Your task to perform on an android device: turn off javascript in the chrome app Image 0: 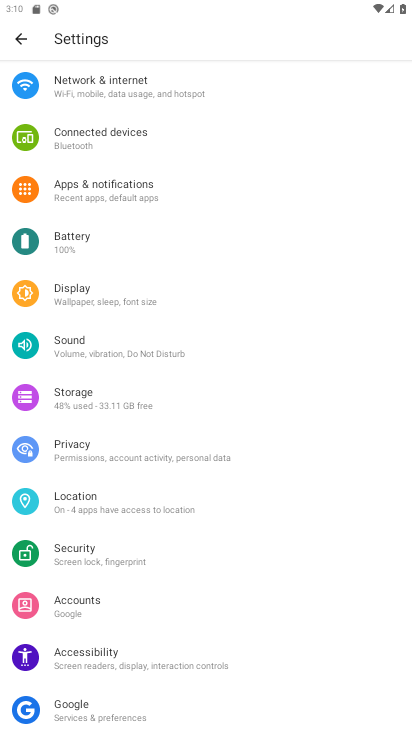
Step 0: press home button
Your task to perform on an android device: turn off javascript in the chrome app Image 1: 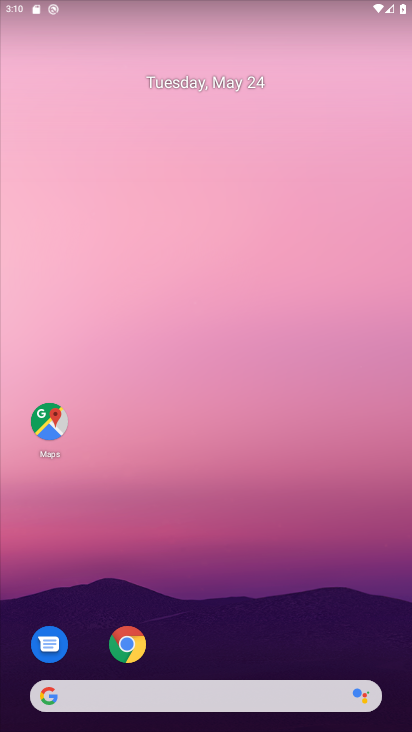
Step 1: drag from (268, 626) to (249, 110)
Your task to perform on an android device: turn off javascript in the chrome app Image 2: 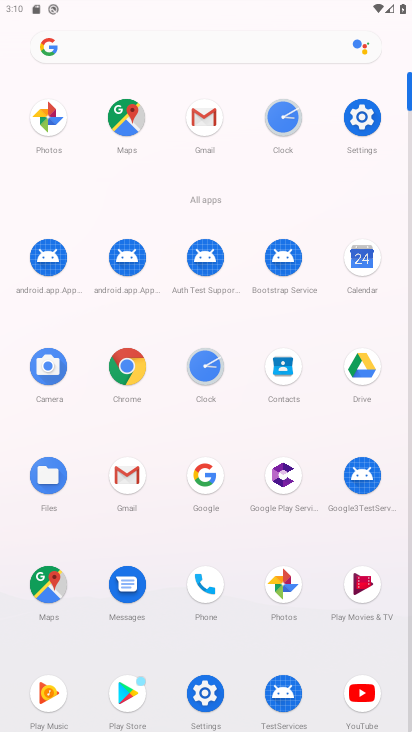
Step 2: click (134, 362)
Your task to perform on an android device: turn off javascript in the chrome app Image 3: 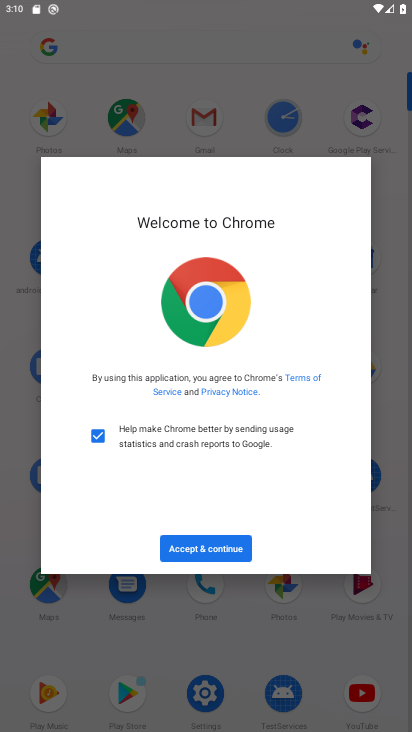
Step 3: click (221, 545)
Your task to perform on an android device: turn off javascript in the chrome app Image 4: 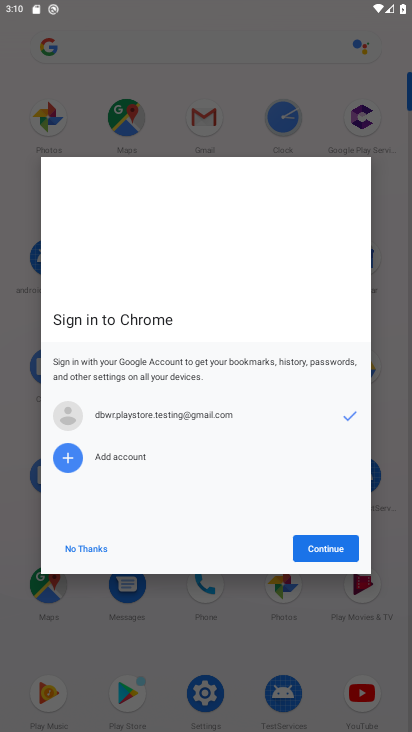
Step 4: click (345, 539)
Your task to perform on an android device: turn off javascript in the chrome app Image 5: 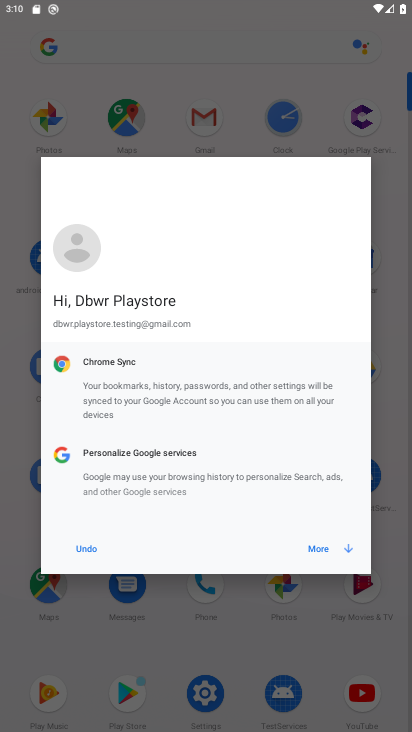
Step 5: click (330, 555)
Your task to perform on an android device: turn off javascript in the chrome app Image 6: 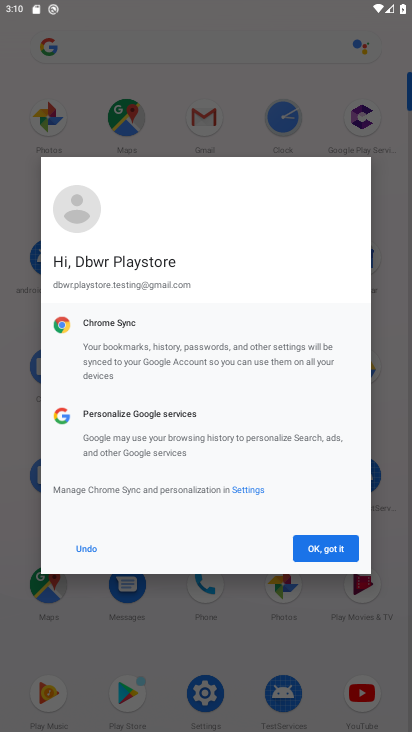
Step 6: click (330, 555)
Your task to perform on an android device: turn off javascript in the chrome app Image 7: 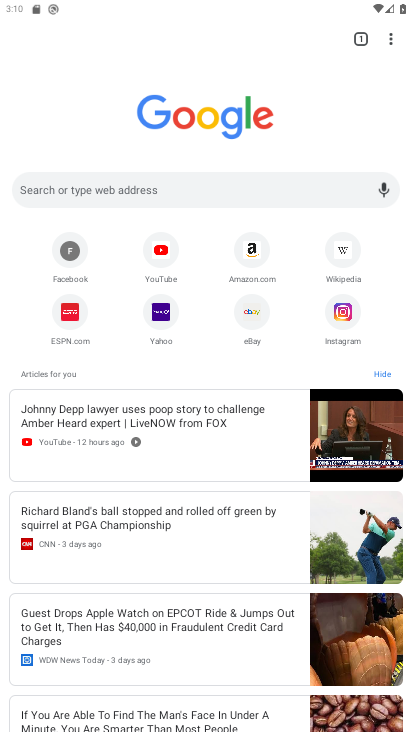
Step 7: click (389, 31)
Your task to perform on an android device: turn off javascript in the chrome app Image 8: 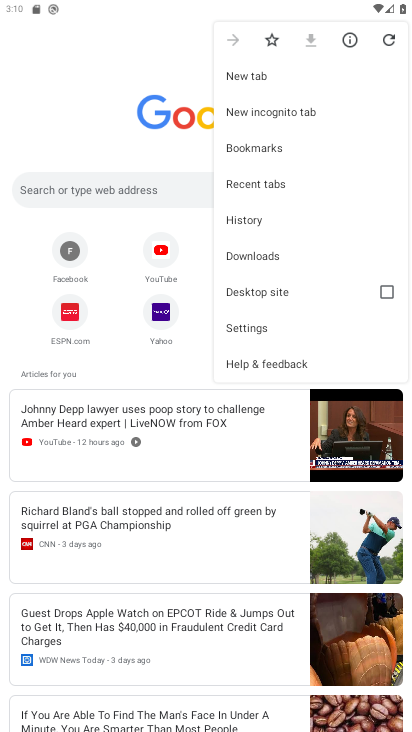
Step 8: click (241, 319)
Your task to perform on an android device: turn off javascript in the chrome app Image 9: 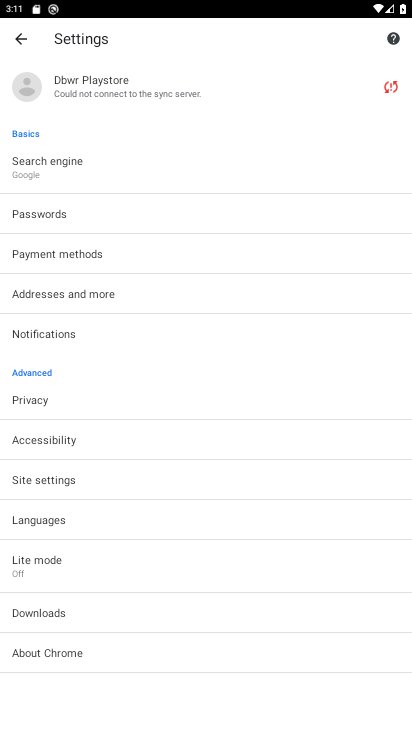
Step 9: click (156, 486)
Your task to perform on an android device: turn off javascript in the chrome app Image 10: 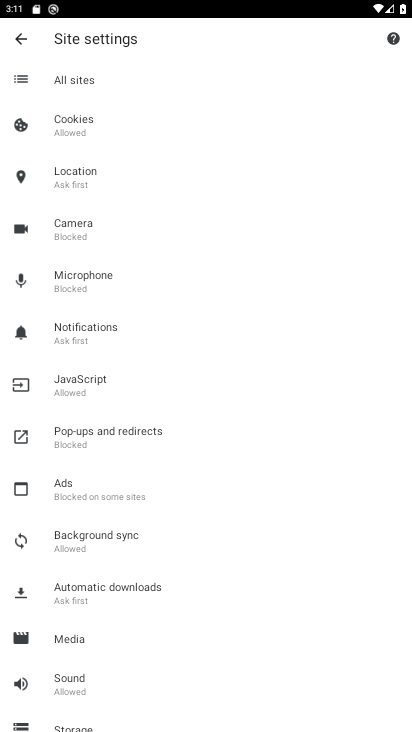
Step 10: click (140, 382)
Your task to perform on an android device: turn off javascript in the chrome app Image 11: 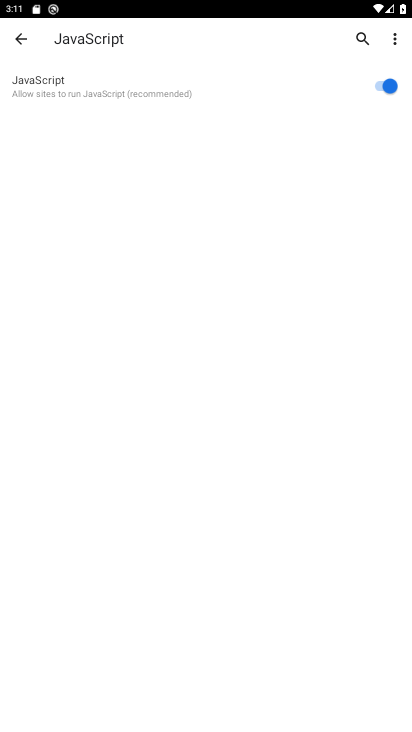
Step 11: click (365, 94)
Your task to perform on an android device: turn off javascript in the chrome app Image 12: 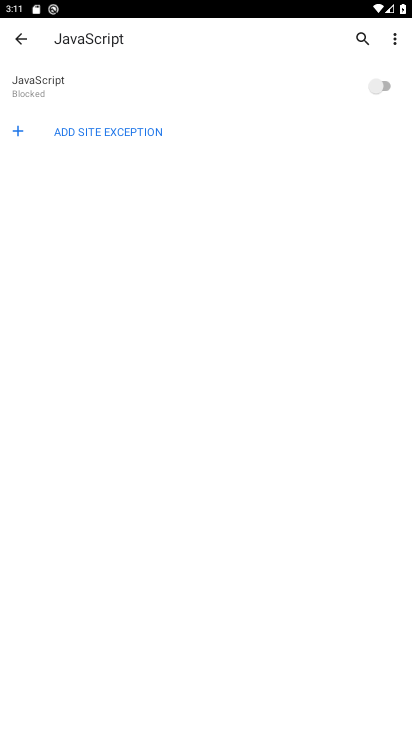
Step 12: task complete